Your task to perform on an android device: change alarm snooze length Image 0: 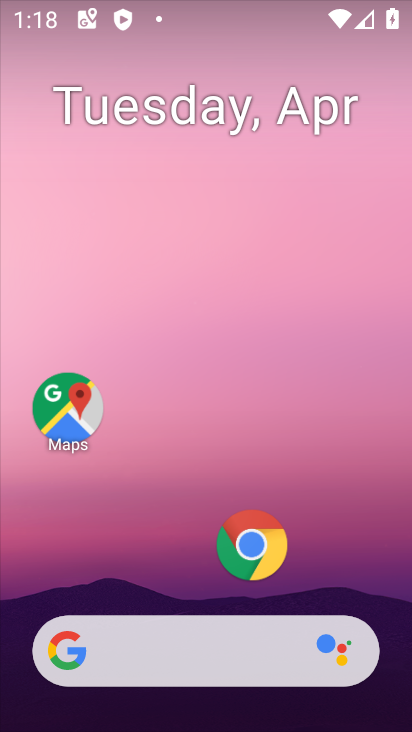
Step 0: drag from (131, 591) to (260, 161)
Your task to perform on an android device: change alarm snooze length Image 1: 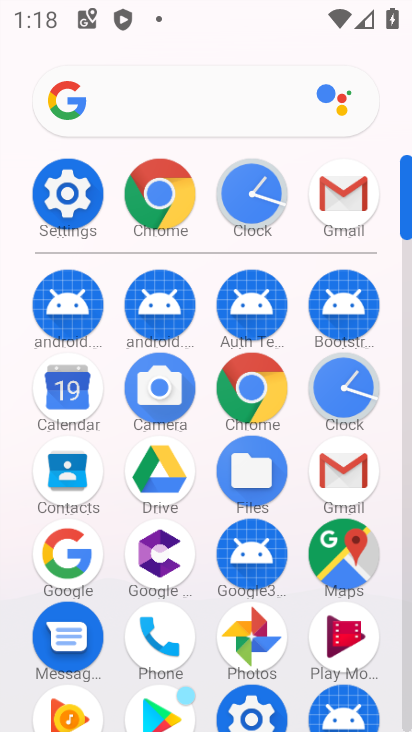
Step 1: click (327, 385)
Your task to perform on an android device: change alarm snooze length Image 2: 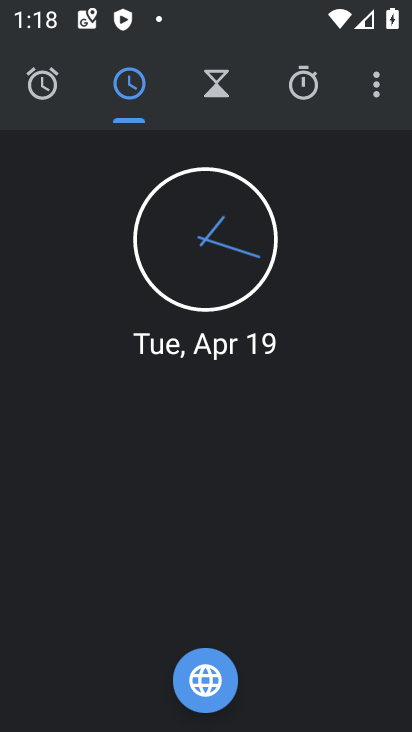
Step 2: click (377, 81)
Your task to perform on an android device: change alarm snooze length Image 3: 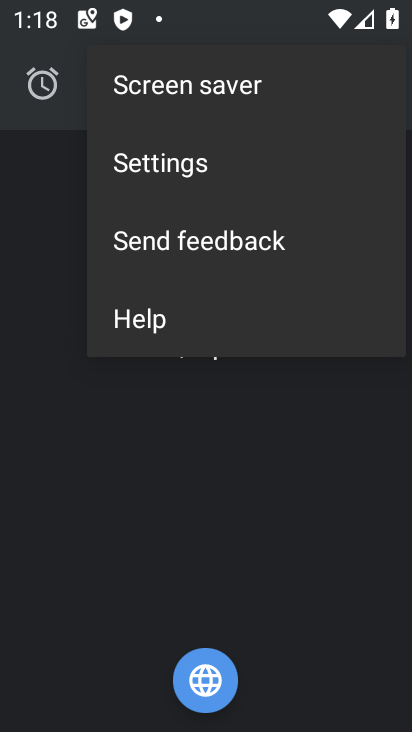
Step 3: click (203, 160)
Your task to perform on an android device: change alarm snooze length Image 4: 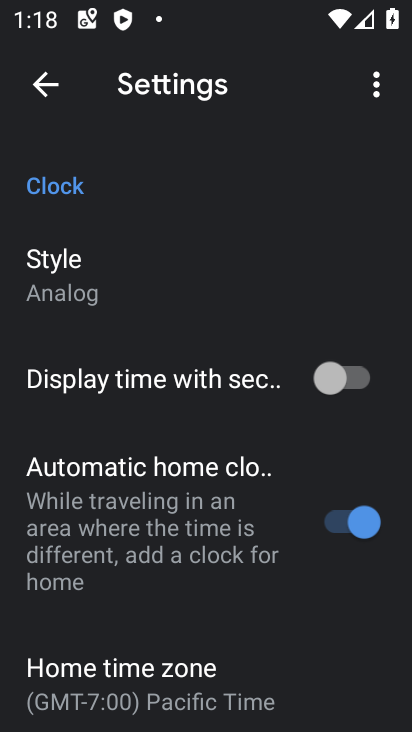
Step 4: drag from (83, 626) to (217, 94)
Your task to perform on an android device: change alarm snooze length Image 5: 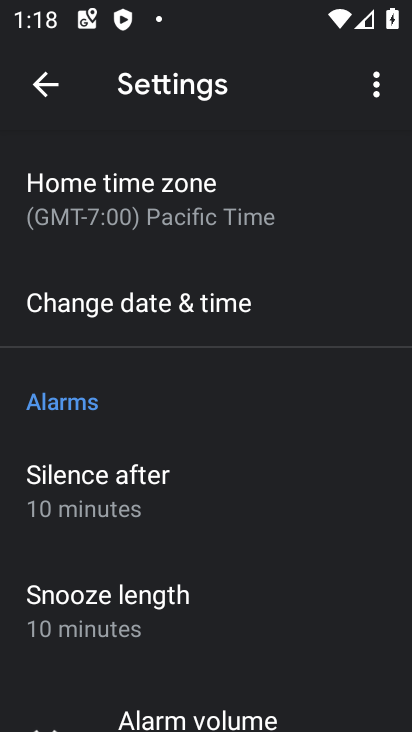
Step 5: click (174, 606)
Your task to perform on an android device: change alarm snooze length Image 6: 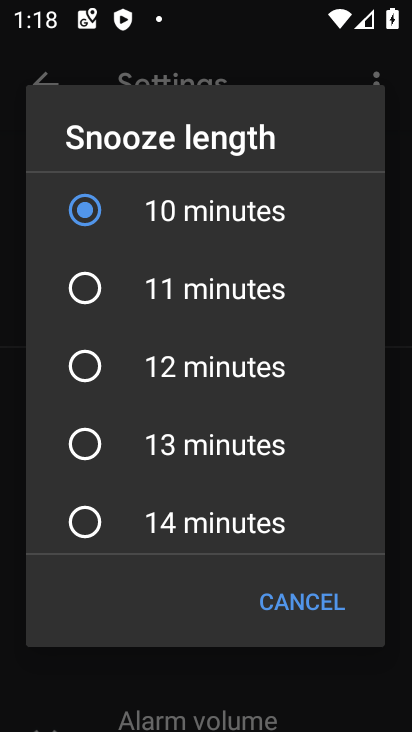
Step 6: drag from (230, 517) to (245, 161)
Your task to perform on an android device: change alarm snooze length Image 7: 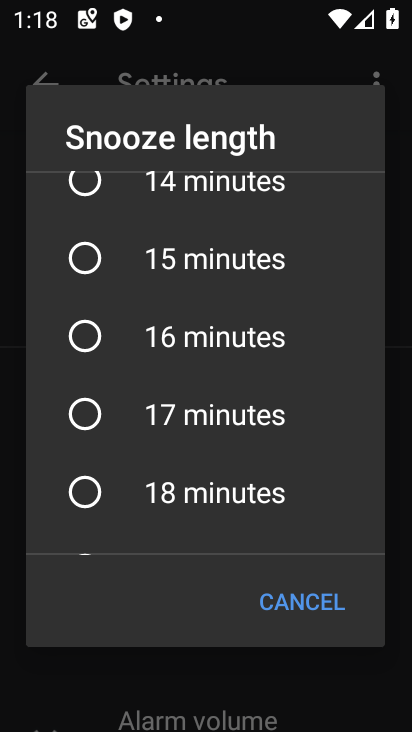
Step 7: click (177, 487)
Your task to perform on an android device: change alarm snooze length Image 8: 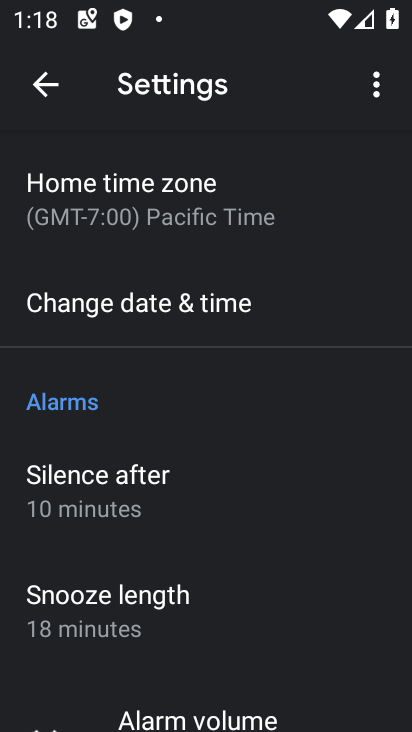
Step 8: task complete